Your task to perform on an android device: turn on priority inbox in the gmail app Image 0: 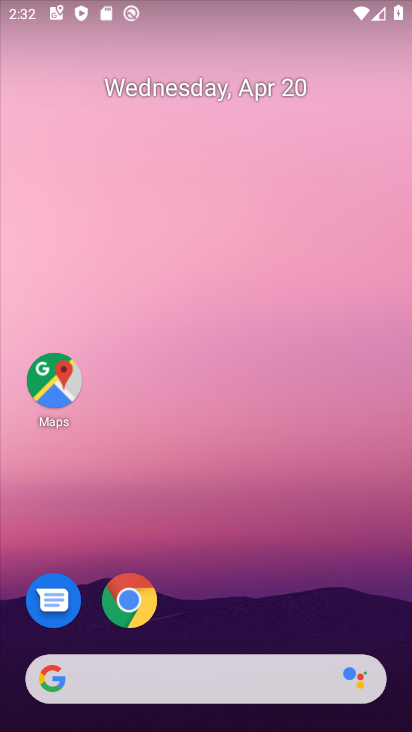
Step 0: drag from (269, 521) to (316, 64)
Your task to perform on an android device: turn on priority inbox in the gmail app Image 1: 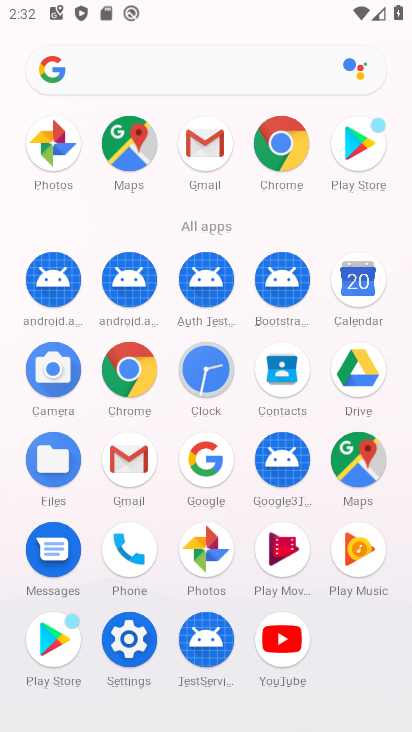
Step 1: click (196, 146)
Your task to perform on an android device: turn on priority inbox in the gmail app Image 2: 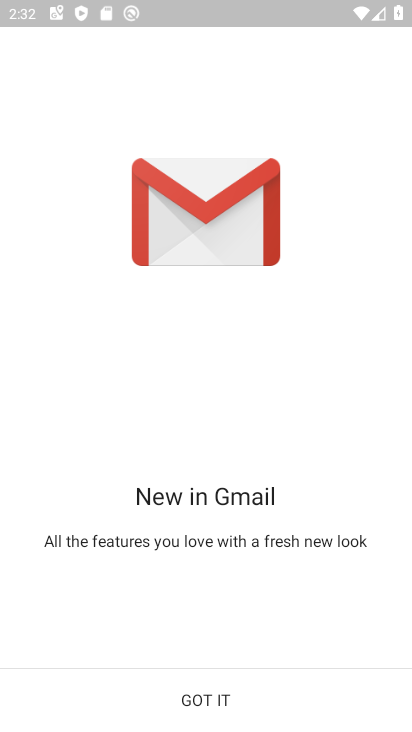
Step 2: click (216, 687)
Your task to perform on an android device: turn on priority inbox in the gmail app Image 3: 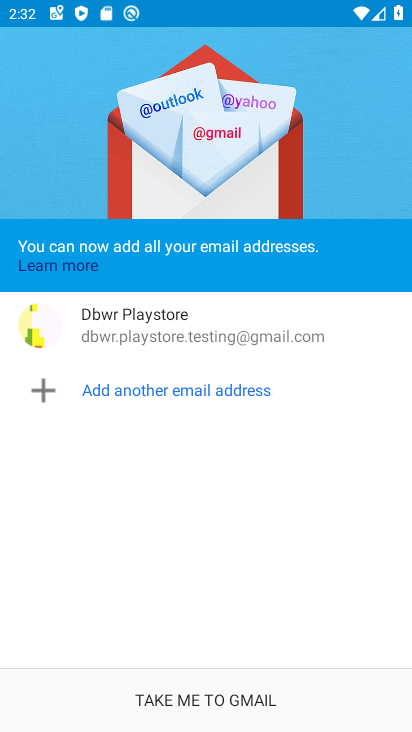
Step 3: click (216, 680)
Your task to perform on an android device: turn on priority inbox in the gmail app Image 4: 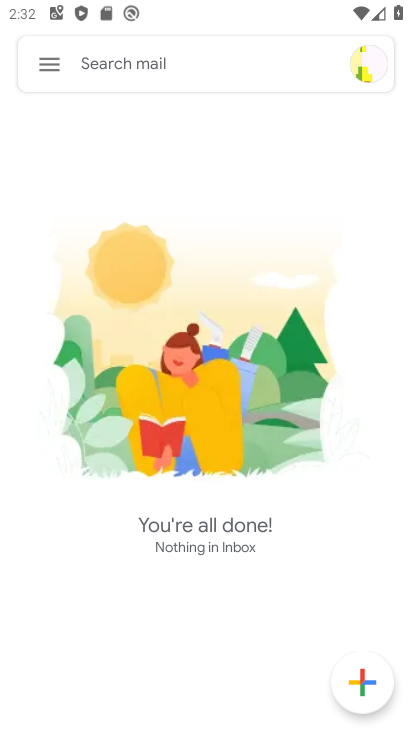
Step 4: click (54, 76)
Your task to perform on an android device: turn on priority inbox in the gmail app Image 5: 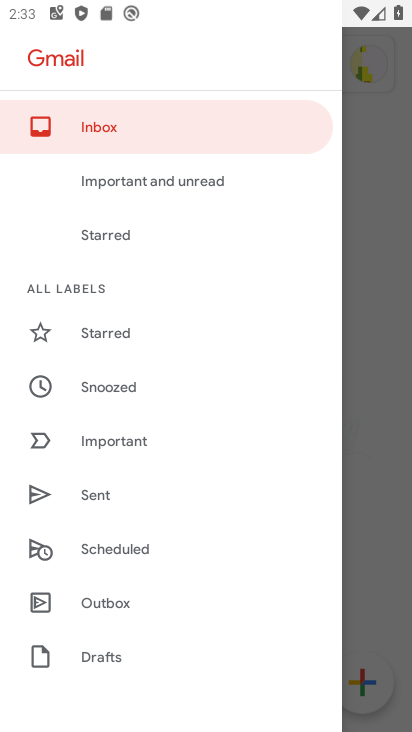
Step 5: drag from (72, 553) to (104, 218)
Your task to perform on an android device: turn on priority inbox in the gmail app Image 6: 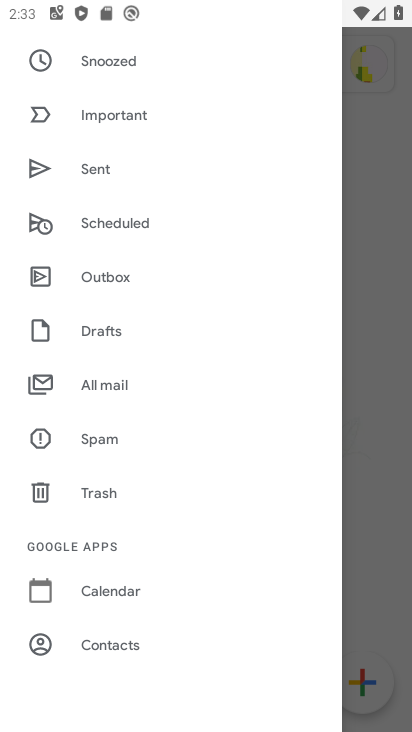
Step 6: drag from (145, 629) to (184, 214)
Your task to perform on an android device: turn on priority inbox in the gmail app Image 7: 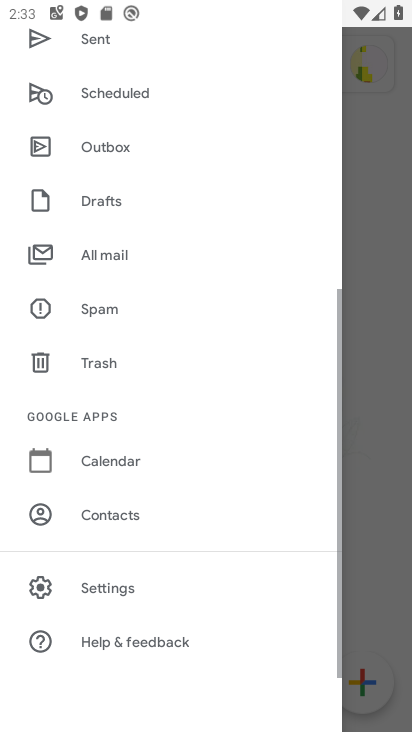
Step 7: click (122, 584)
Your task to perform on an android device: turn on priority inbox in the gmail app Image 8: 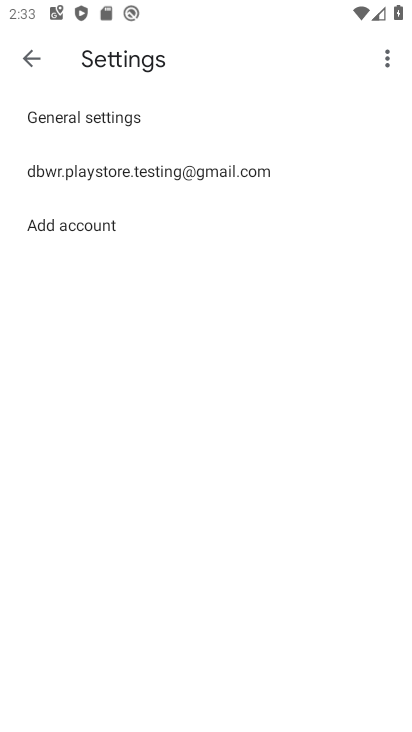
Step 8: click (57, 184)
Your task to perform on an android device: turn on priority inbox in the gmail app Image 9: 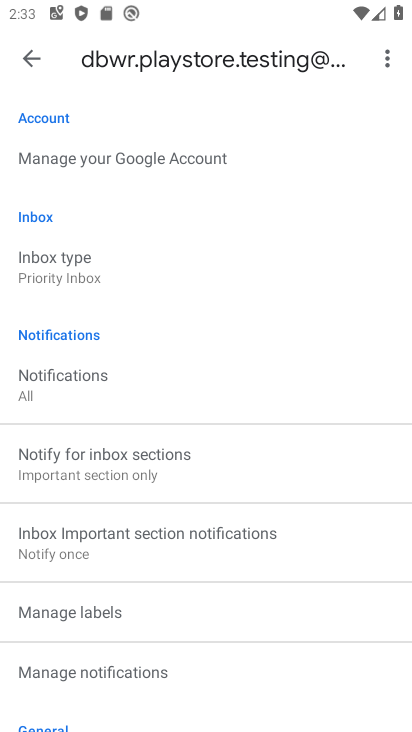
Step 9: click (98, 277)
Your task to perform on an android device: turn on priority inbox in the gmail app Image 10: 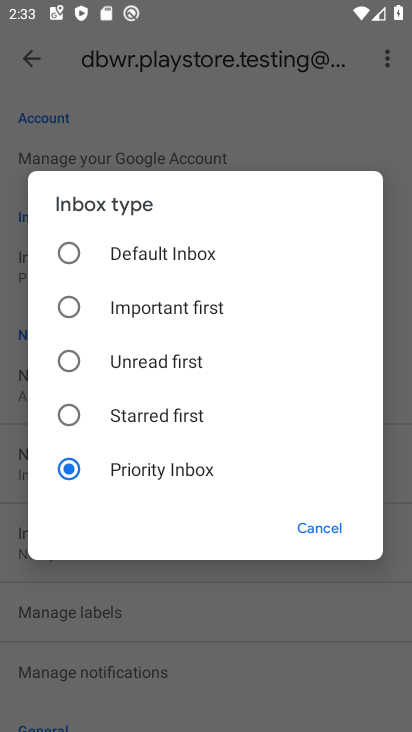
Step 10: task complete